Your task to perform on an android device: Open the calendar and show me this week's events Image 0: 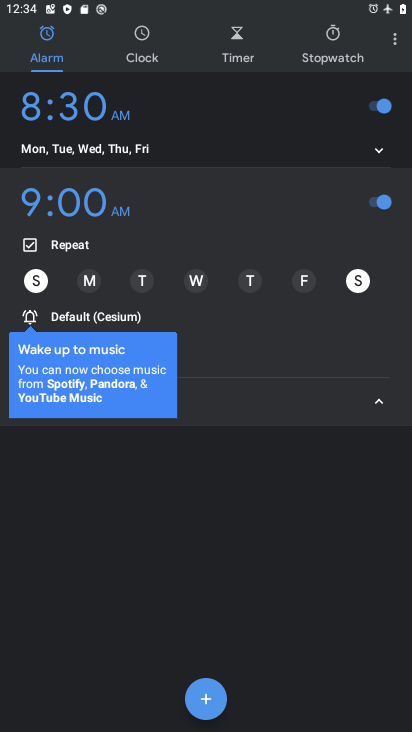
Step 0: drag from (352, 605) to (387, 313)
Your task to perform on an android device: Open the calendar and show me this week's events Image 1: 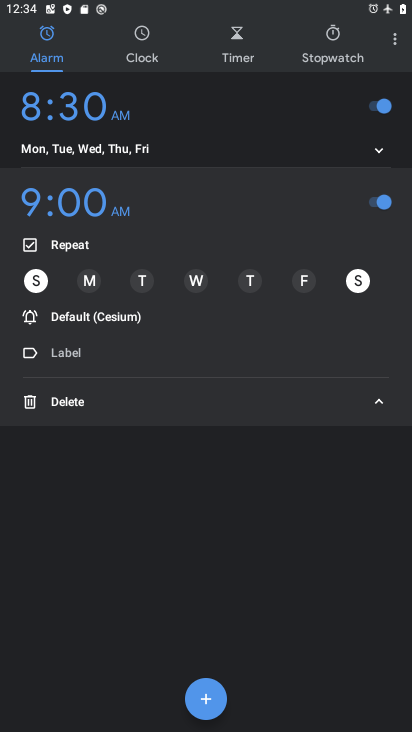
Step 1: press home button
Your task to perform on an android device: Open the calendar and show me this week's events Image 2: 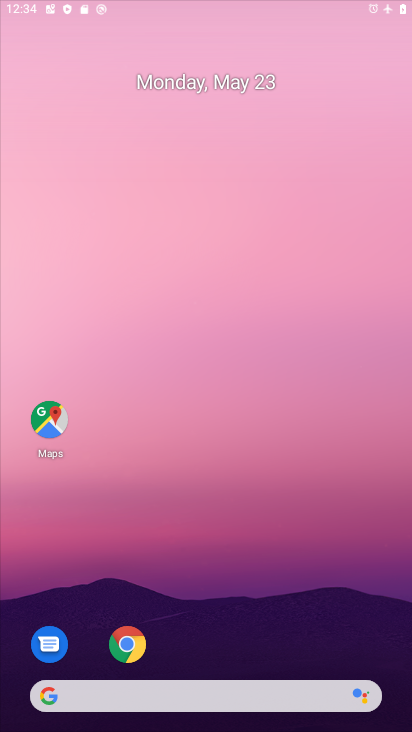
Step 2: drag from (327, 628) to (271, 136)
Your task to perform on an android device: Open the calendar and show me this week's events Image 3: 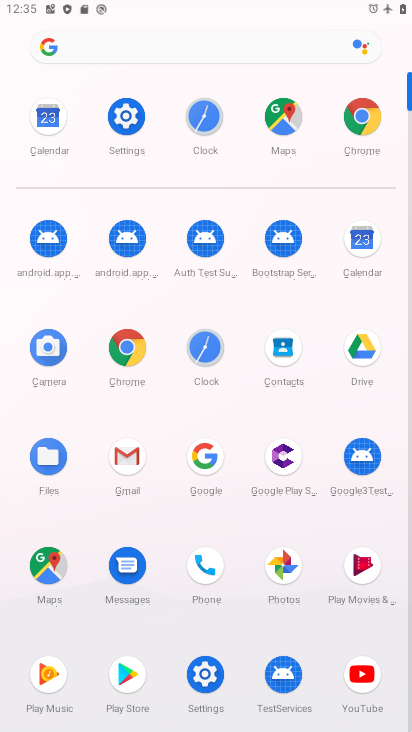
Step 3: click (358, 247)
Your task to perform on an android device: Open the calendar and show me this week's events Image 4: 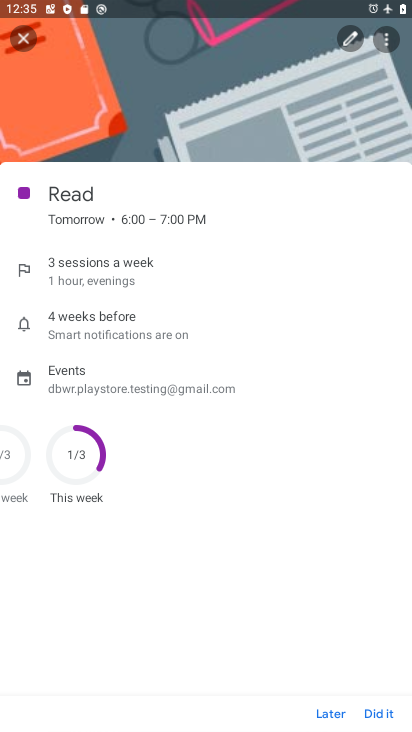
Step 4: task complete